Your task to perform on an android device: Open battery settings Image 0: 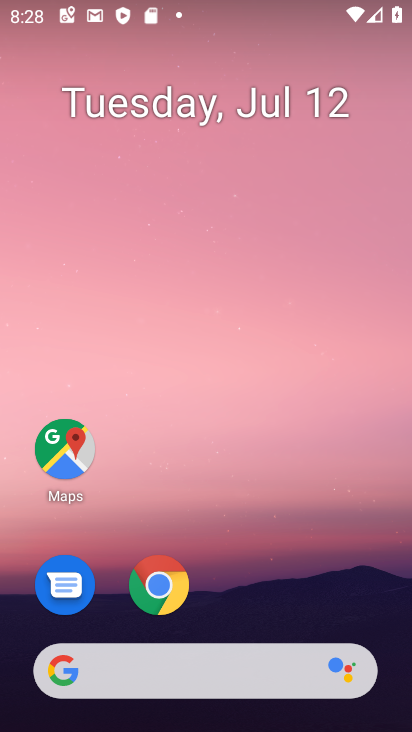
Step 0: drag from (273, 532) to (287, 62)
Your task to perform on an android device: Open battery settings Image 1: 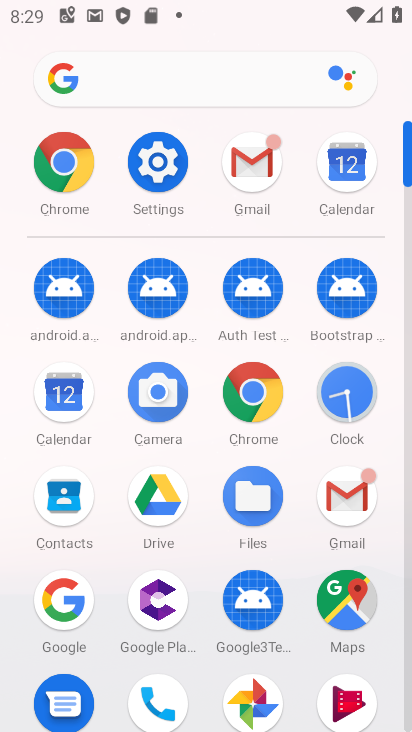
Step 1: click (175, 160)
Your task to perform on an android device: Open battery settings Image 2: 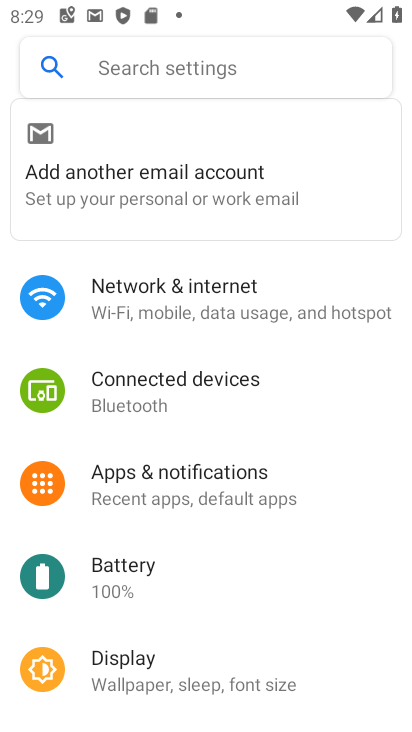
Step 2: click (124, 555)
Your task to perform on an android device: Open battery settings Image 3: 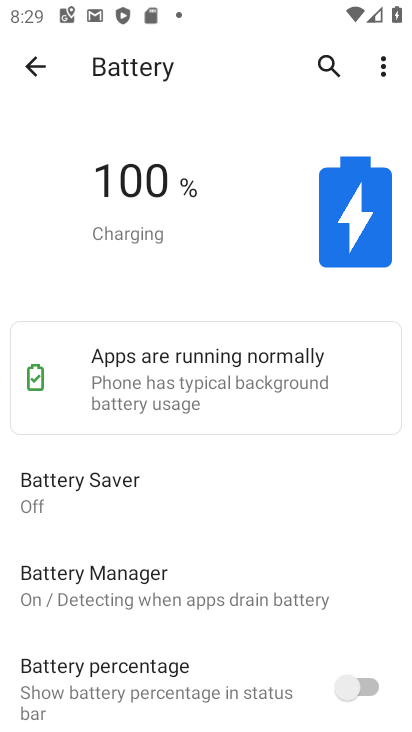
Step 3: task complete